Your task to perform on an android device: What is the recent news? Image 0: 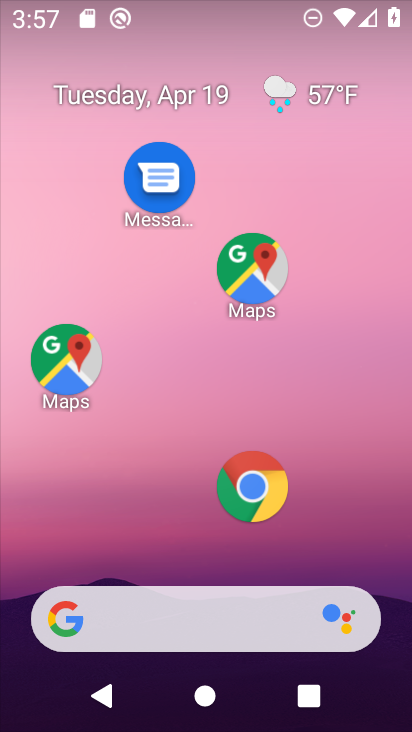
Step 0: drag from (232, 581) to (312, 170)
Your task to perform on an android device: What is the recent news? Image 1: 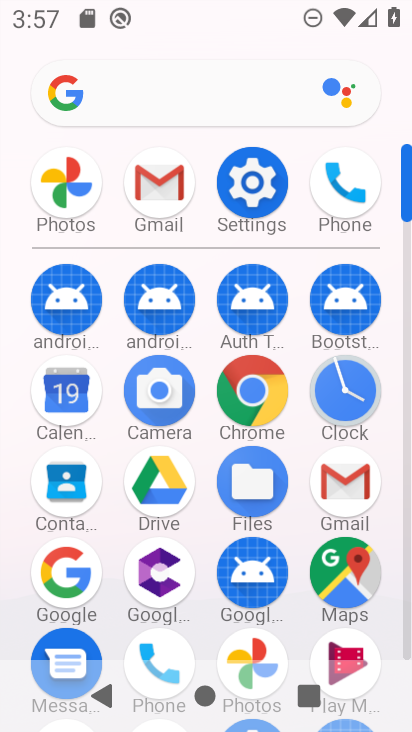
Step 1: click (57, 595)
Your task to perform on an android device: What is the recent news? Image 2: 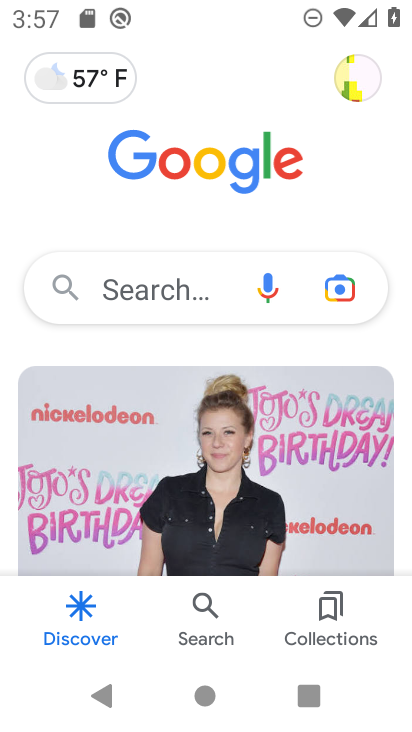
Step 2: task complete